Your task to perform on an android device: check the backup settings in the google photos Image 0: 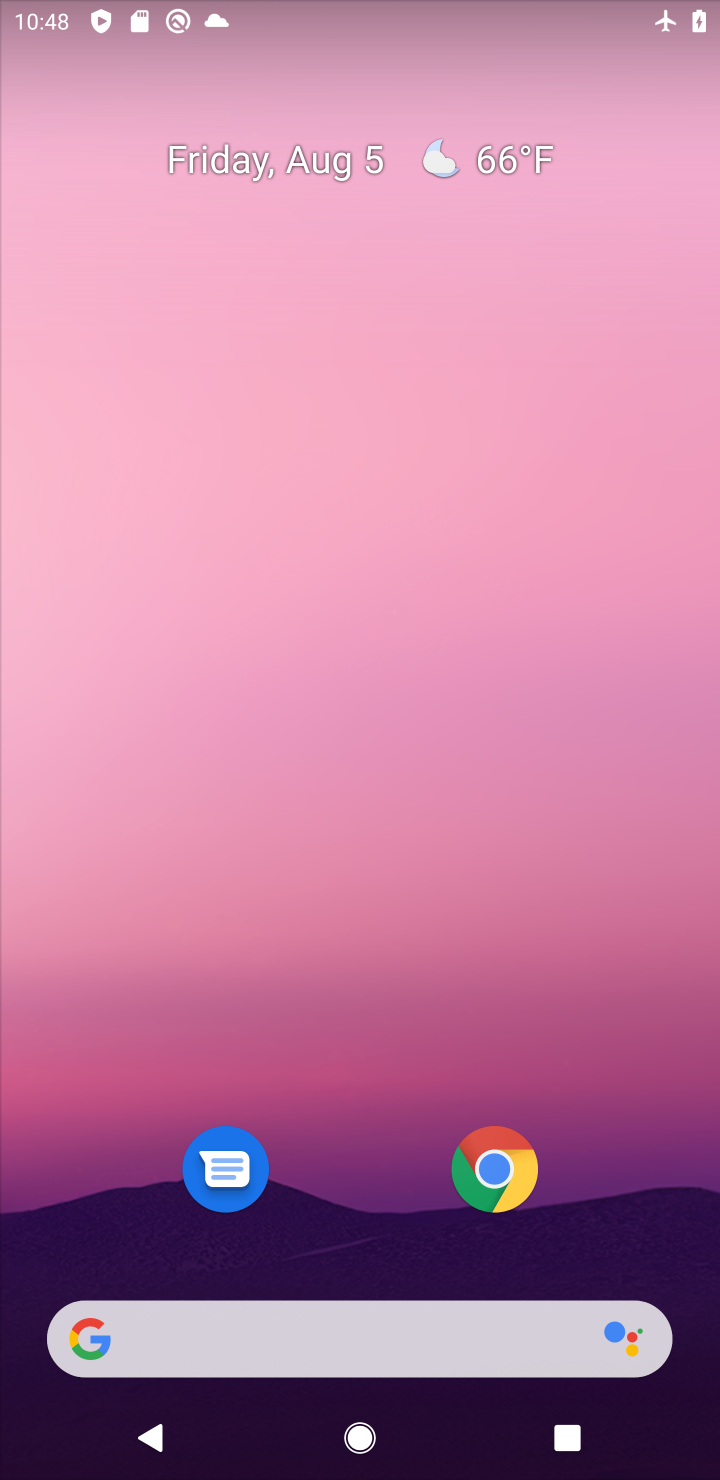
Step 0: drag from (642, 1178) to (580, 447)
Your task to perform on an android device: check the backup settings in the google photos Image 1: 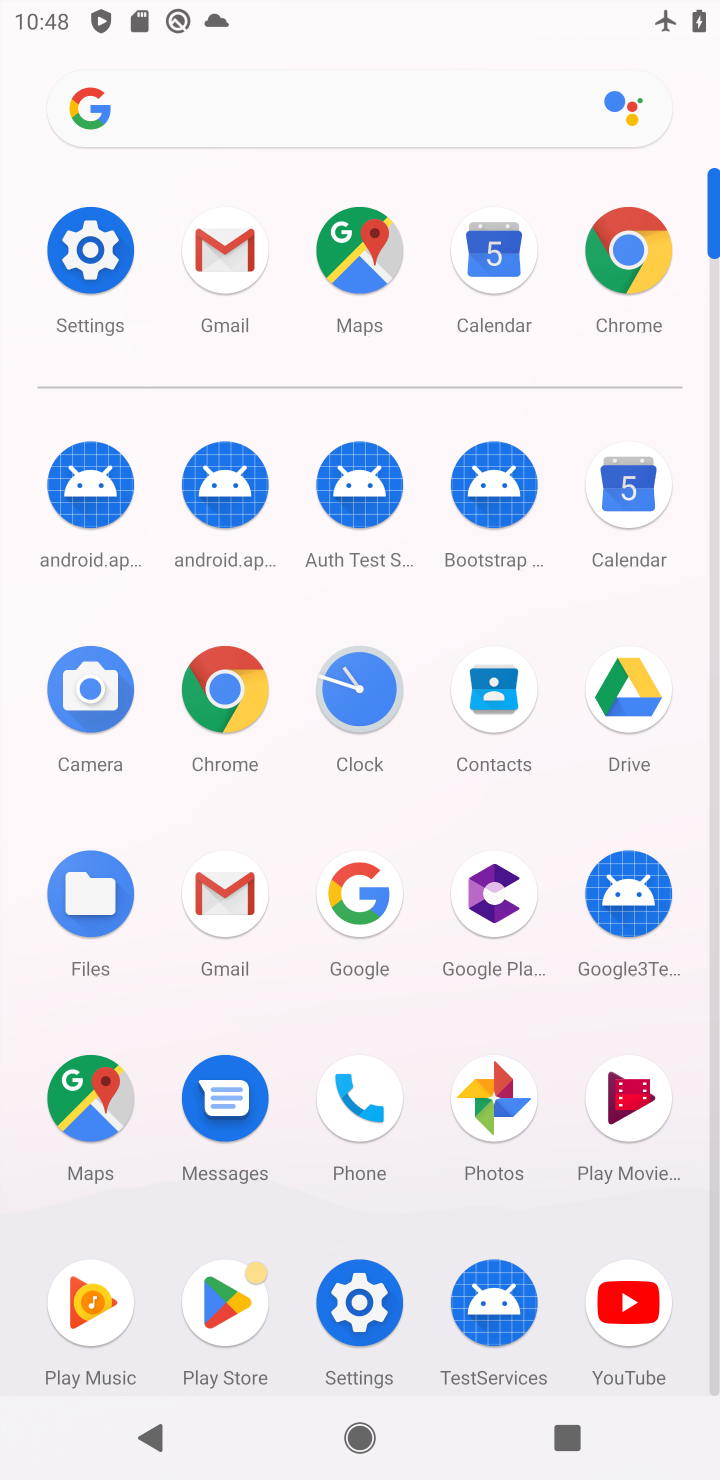
Step 1: click (485, 1098)
Your task to perform on an android device: check the backup settings in the google photos Image 2: 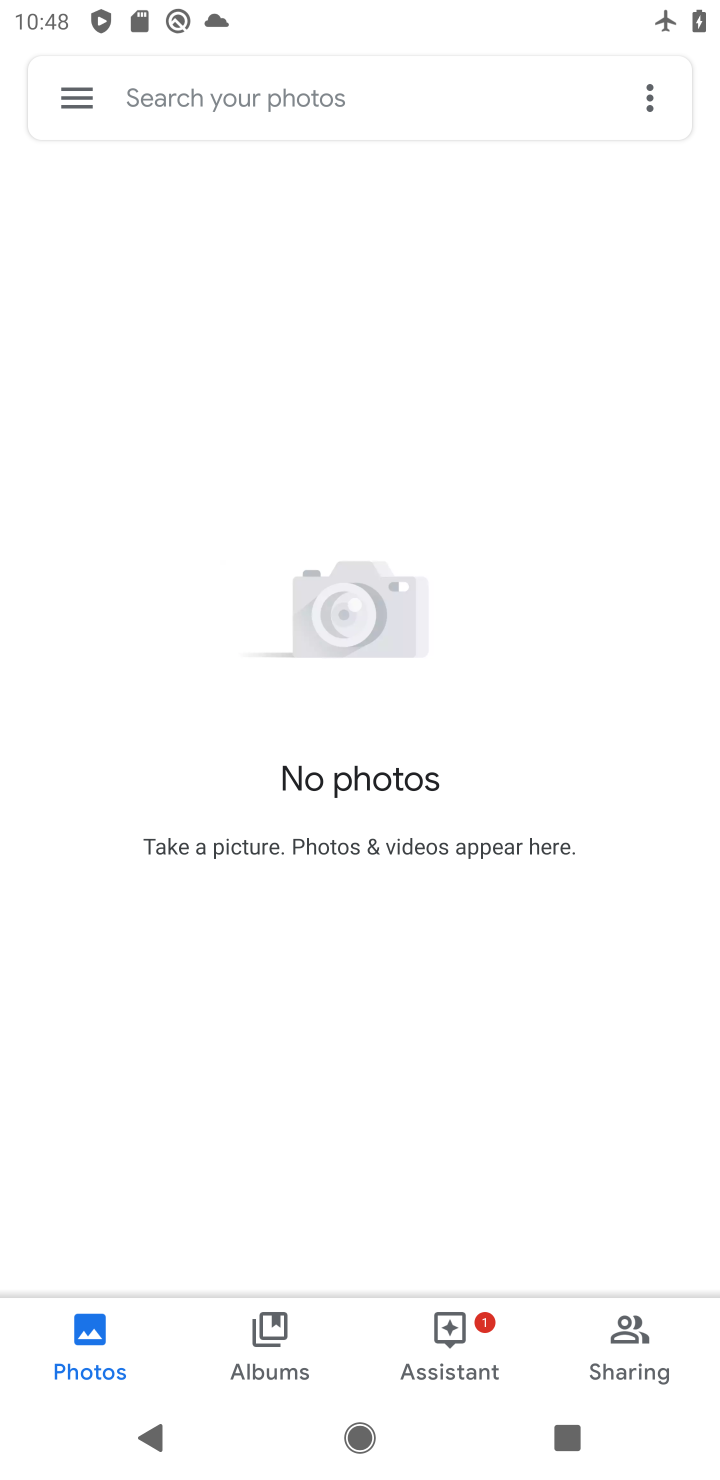
Step 2: click (73, 88)
Your task to perform on an android device: check the backup settings in the google photos Image 3: 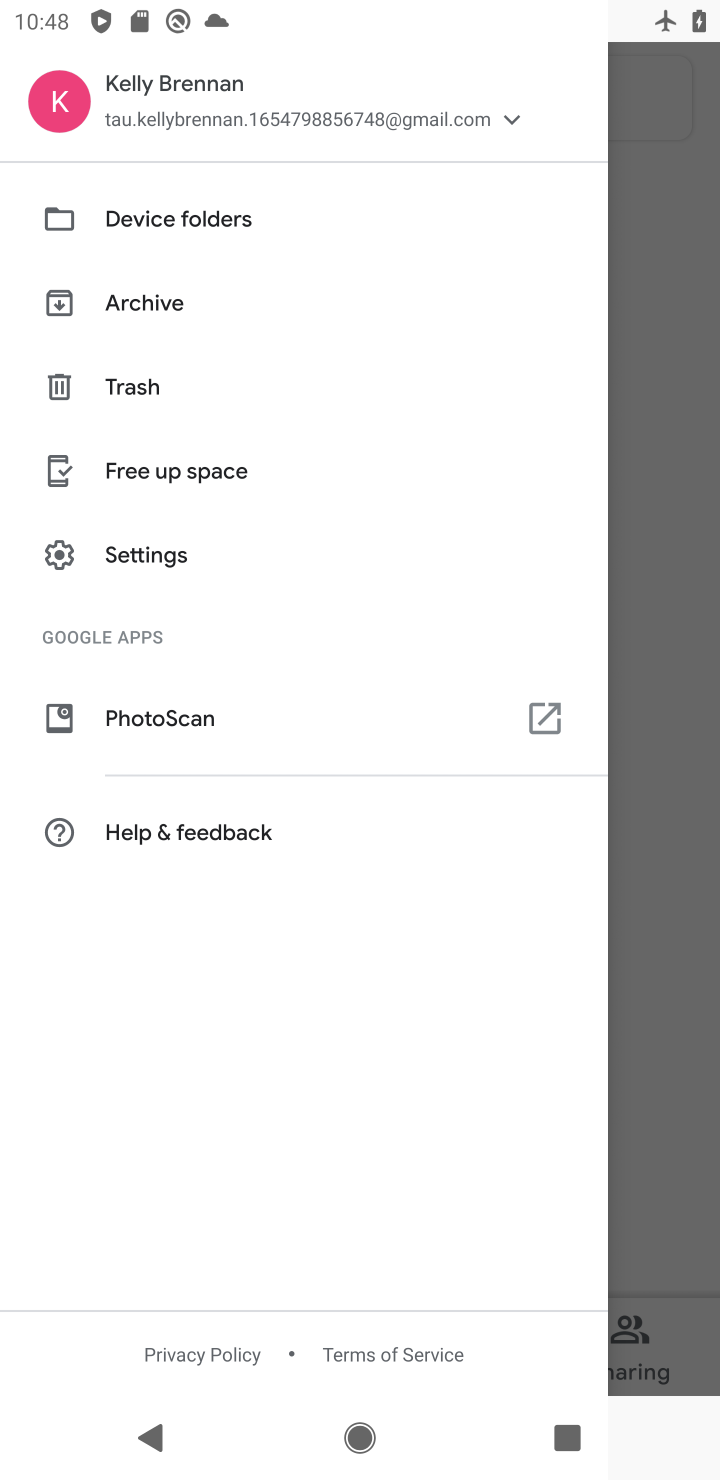
Step 3: click (152, 564)
Your task to perform on an android device: check the backup settings in the google photos Image 4: 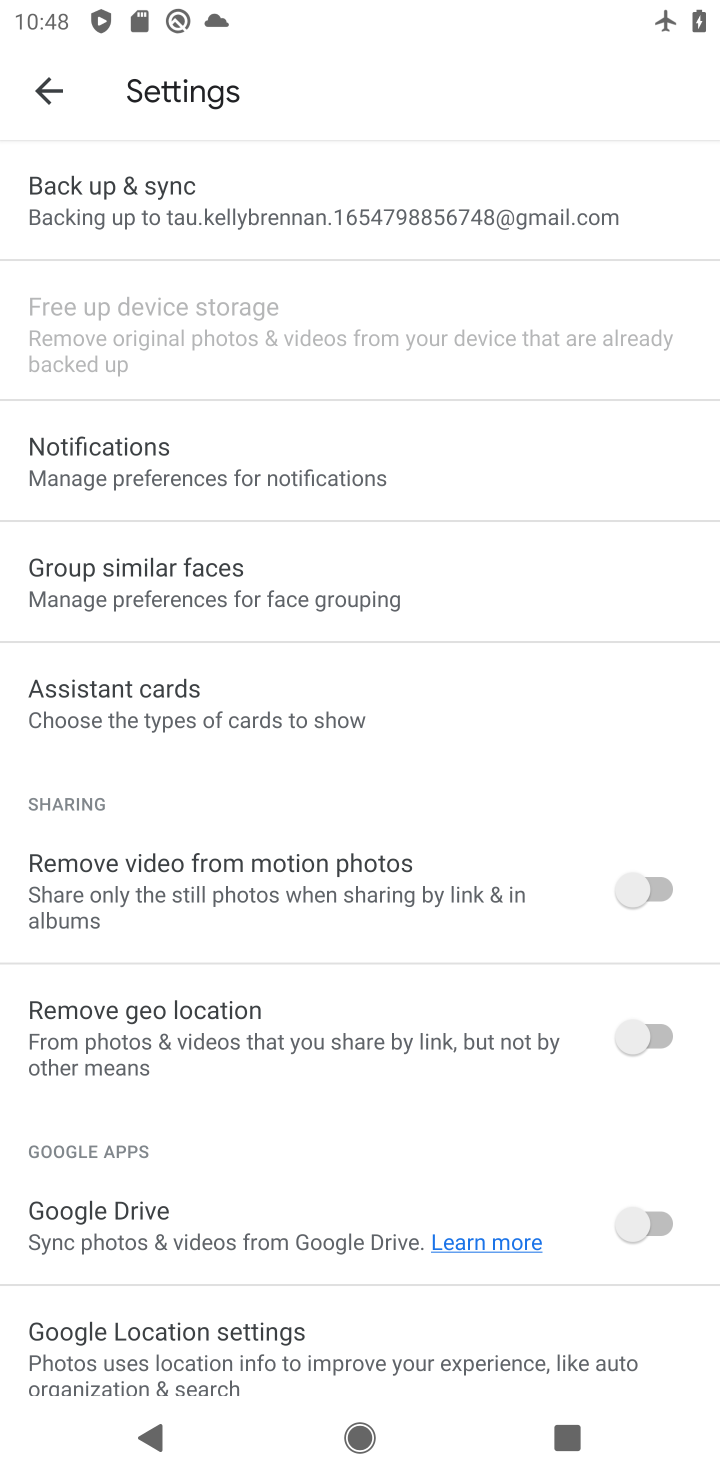
Step 4: click (205, 178)
Your task to perform on an android device: check the backup settings in the google photos Image 5: 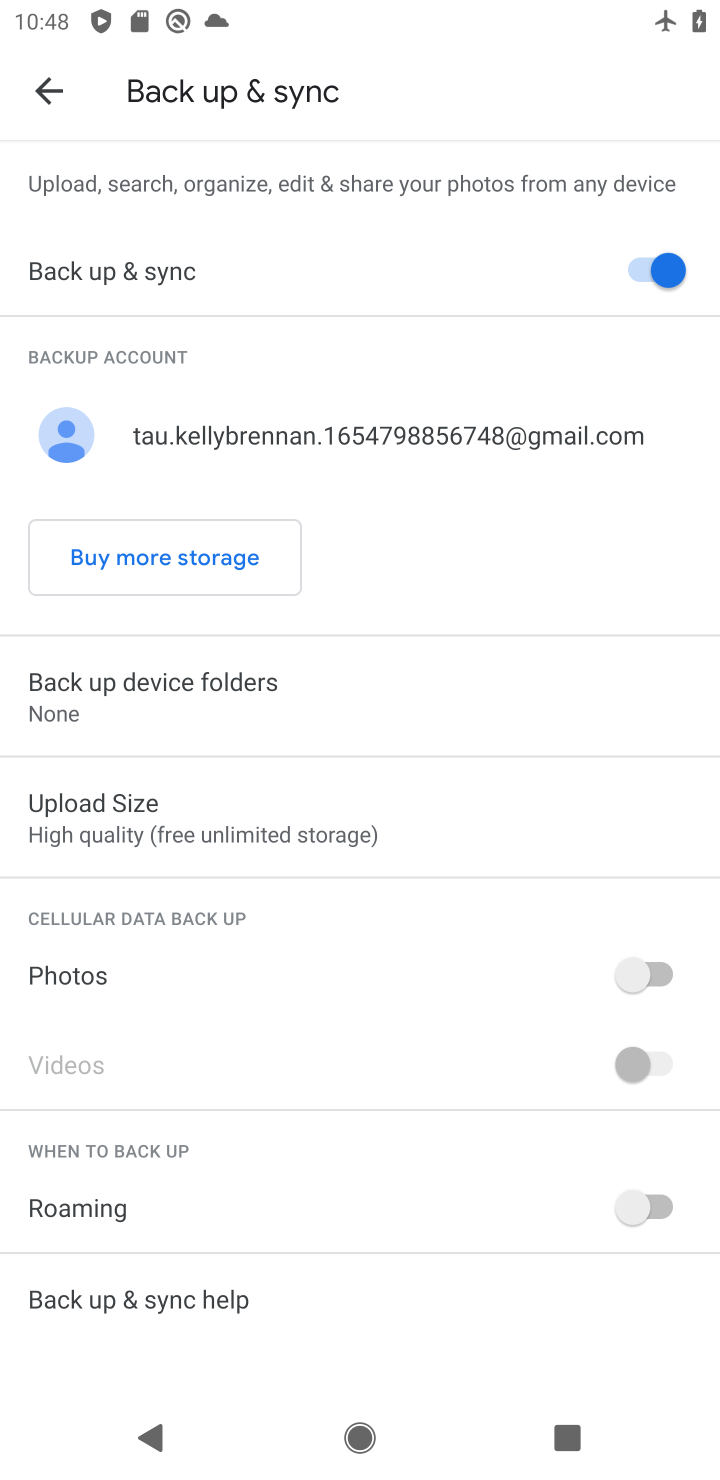
Step 5: task complete